Your task to perform on an android device: What's on my calendar tomorrow? Image 0: 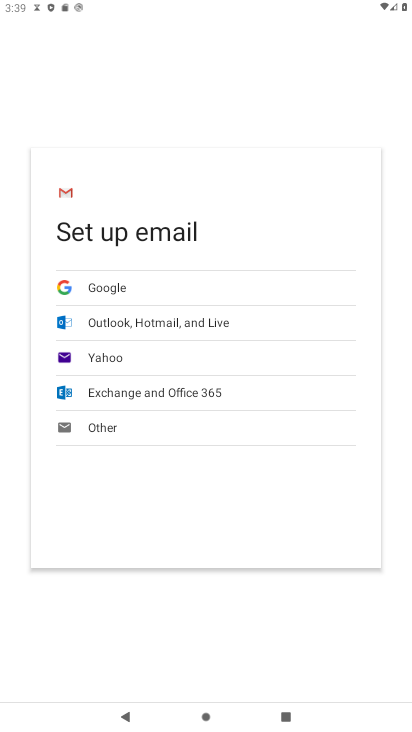
Step 0: press home button
Your task to perform on an android device: What's on my calendar tomorrow? Image 1: 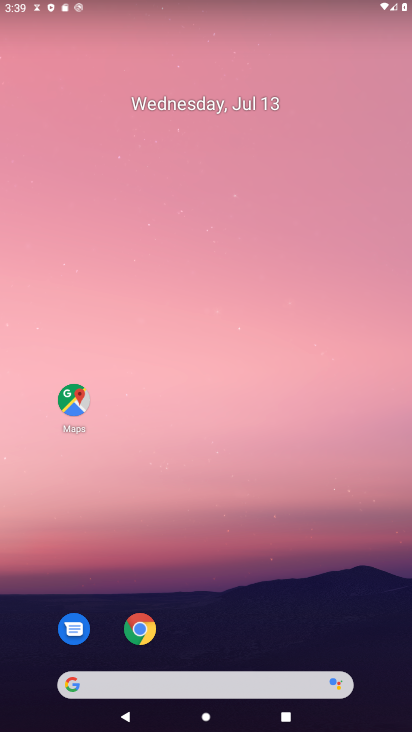
Step 1: drag from (349, 612) to (356, 120)
Your task to perform on an android device: What's on my calendar tomorrow? Image 2: 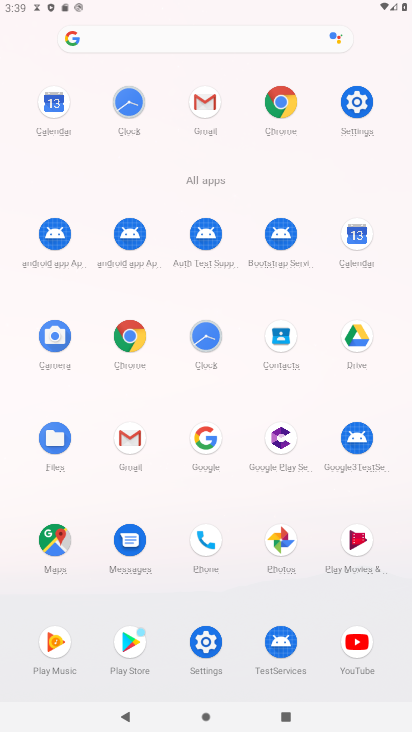
Step 2: click (353, 234)
Your task to perform on an android device: What's on my calendar tomorrow? Image 3: 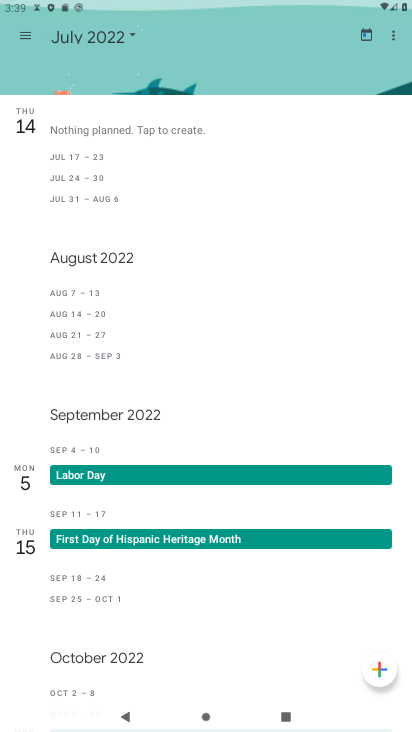
Step 3: click (26, 37)
Your task to perform on an android device: What's on my calendar tomorrow? Image 4: 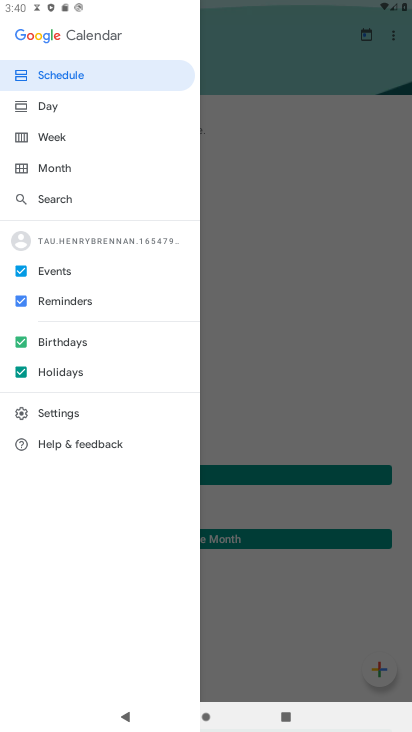
Step 4: click (58, 105)
Your task to perform on an android device: What's on my calendar tomorrow? Image 5: 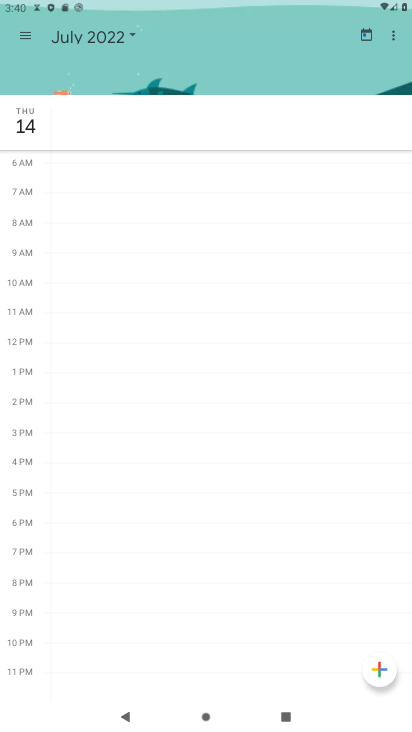
Step 5: task complete